Your task to perform on an android device: toggle notification dots Image 0: 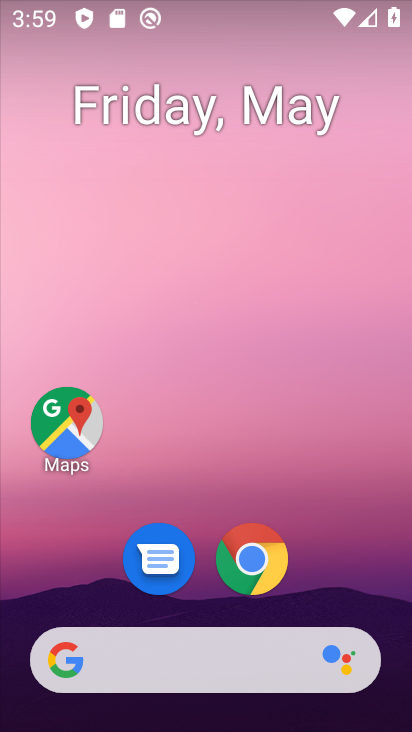
Step 0: drag from (329, 606) to (285, 360)
Your task to perform on an android device: toggle notification dots Image 1: 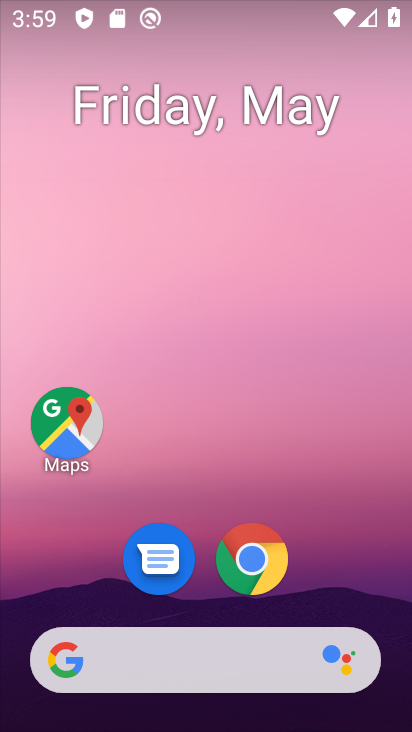
Step 1: drag from (316, 545) to (306, 56)
Your task to perform on an android device: toggle notification dots Image 2: 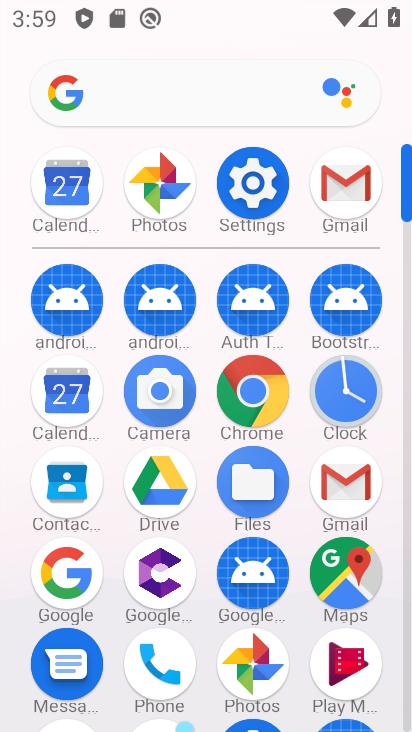
Step 2: click (245, 186)
Your task to perform on an android device: toggle notification dots Image 3: 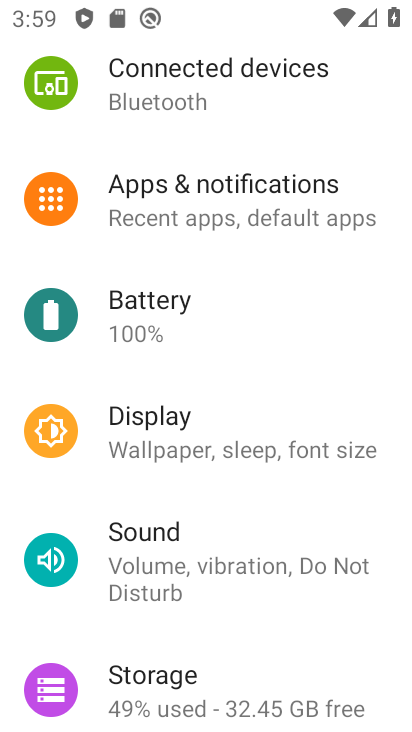
Step 3: click (189, 231)
Your task to perform on an android device: toggle notification dots Image 4: 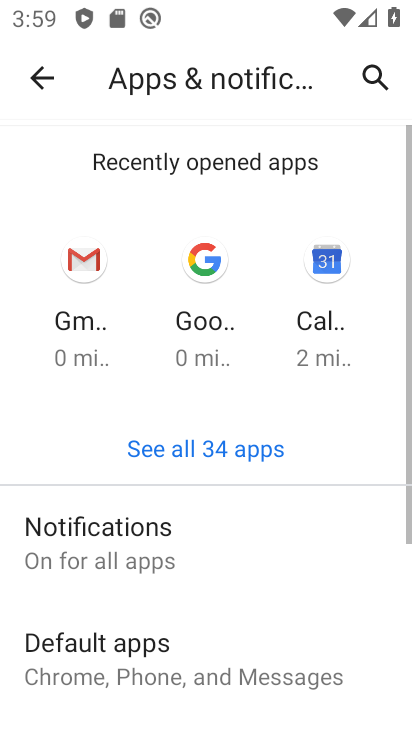
Step 4: click (187, 520)
Your task to perform on an android device: toggle notification dots Image 5: 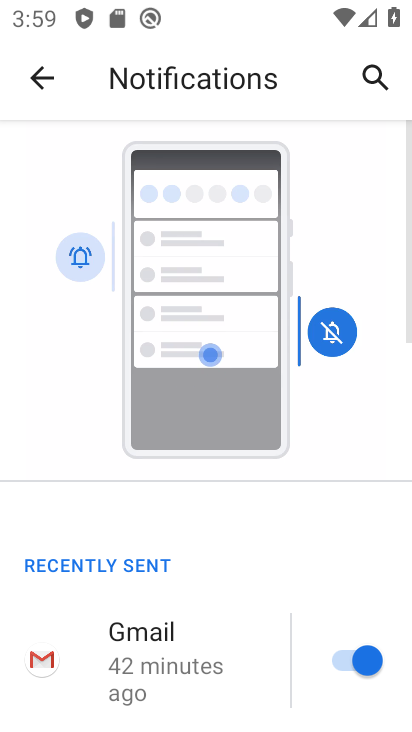
Step 5: drag from (117, 630) to (216, 227)
Your task to perform on an android device: toggle notification dots Image 6: 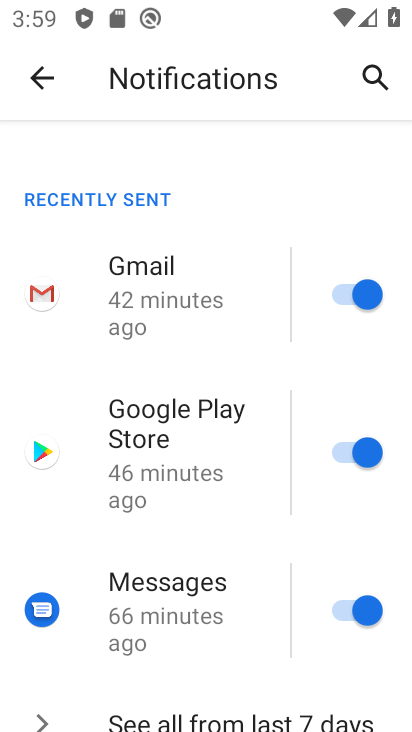
Step 6: drag from (219, 633) to (252, 202)
Your task to perform on an android device: toggle notification dots Image 7: 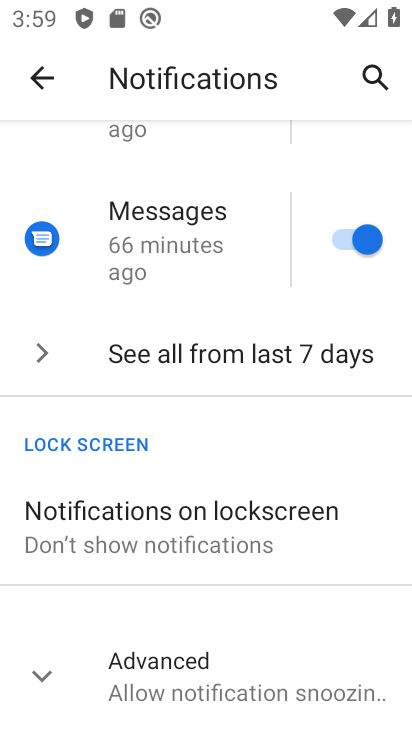
Step 7: click (205, 535)
Your task to perform on an android device: toggle notification dots Image 8: 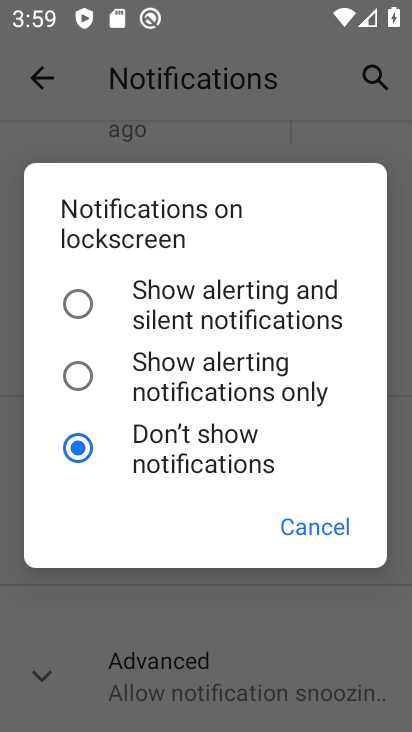
Step 8: click (297, 550)
Your task to perform on an android device: toggle notification dots Image 9: 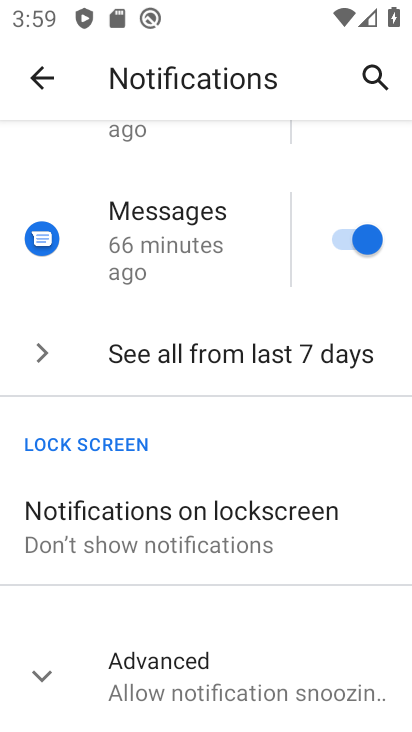
Step 9: click (268, 673)
Your task to perform on an android device: toggle notification dots Image 10: 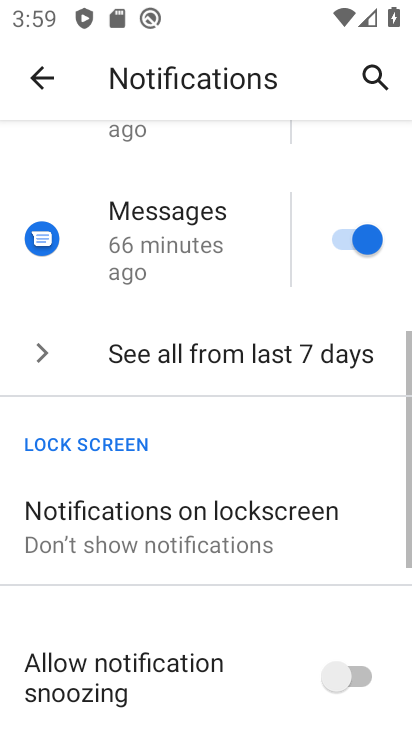
Step 10: drag from (262, 679) to (279, 292)
Your task to perform on an android device: toggle notification dots Image 11: 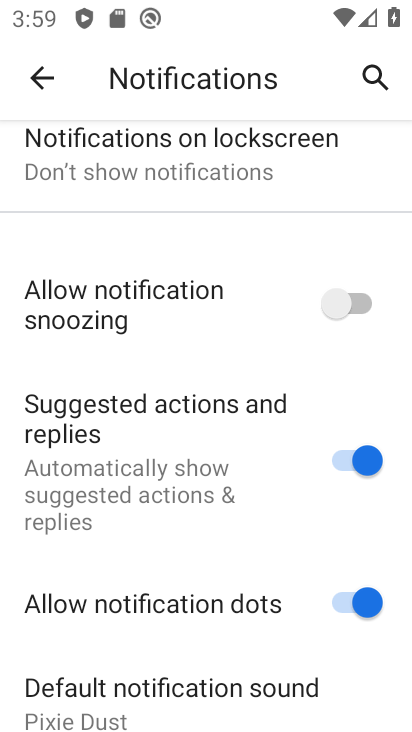
Step 11: drag from (179, 541) to (188, 260)
Your task to perform on an android device: toggle notification dots Image 12: 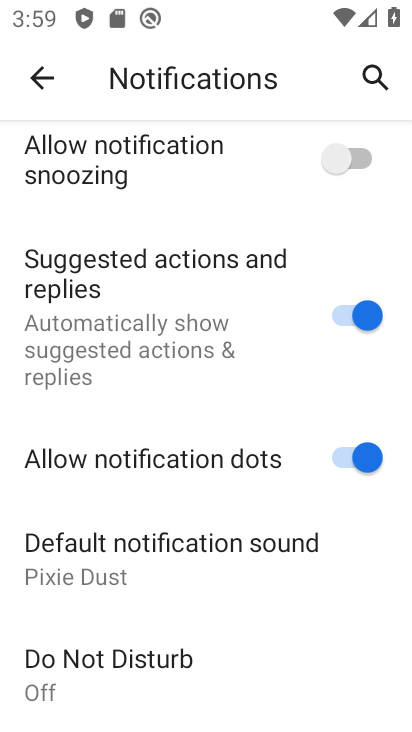
Step 12: click (371, 466)
Your task to perform on an android device: toggle notification dots Image 13: 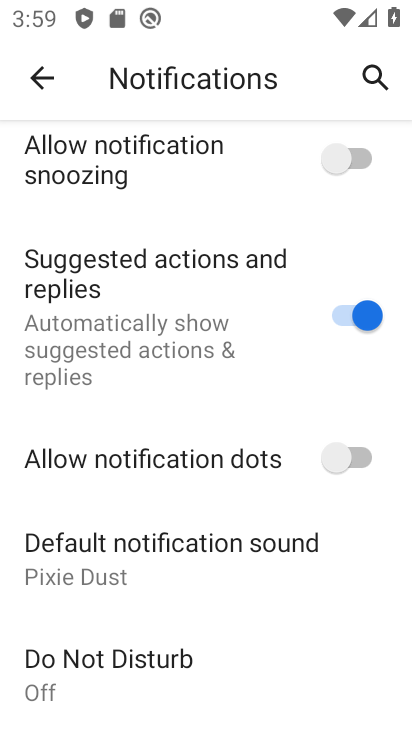
Step 13: task complete